Your task to perform on an android device: Do I have any events this weekend? Image 0: 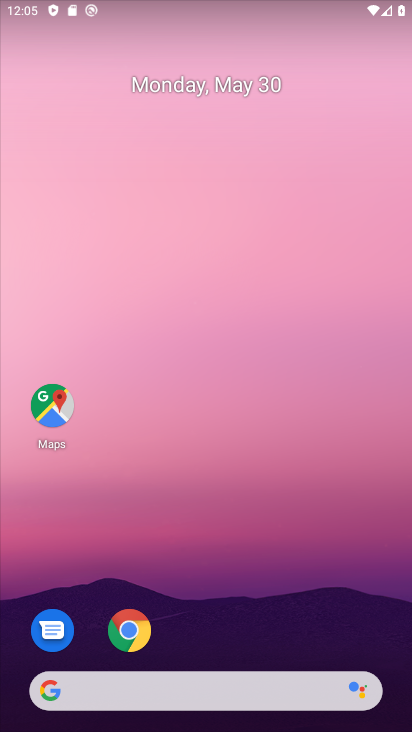
Step 0: drag from (129, 705) to (220, 67)
Your task to perform on an android device: Do I have any events this weekend? Image 1: 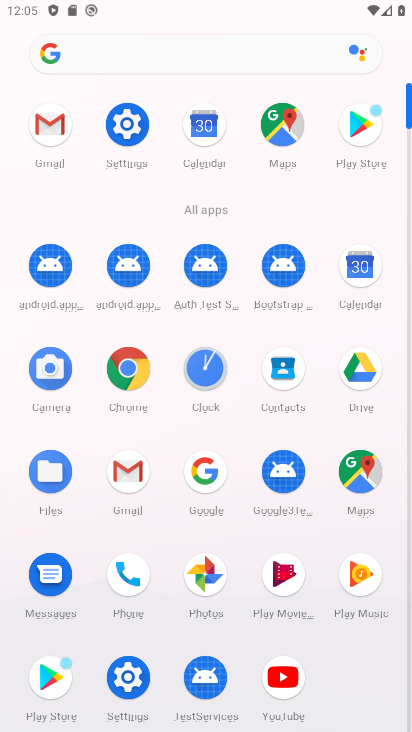
Step 1: click (351, 276)
Your task to perform on an android device: Do I have any events this weekend? Image 2: 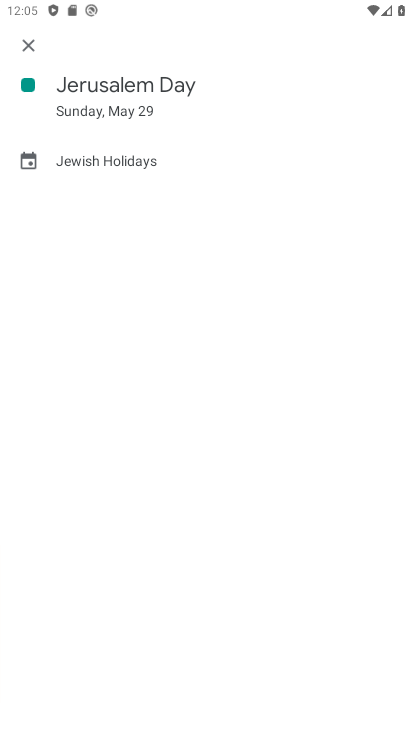
Step 2: click (21, 39)
Your task to perform on an android device: Do I have any events this weekend? Image 3: 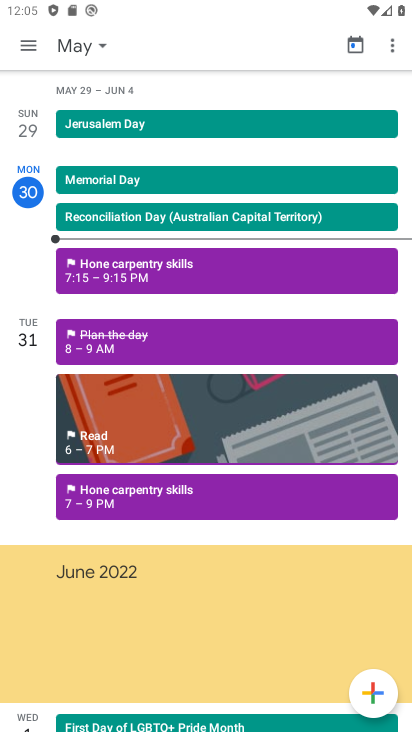
Step 3: click (21, 47)
Your task to perform on an android device: Do I have any events this weekend? Image 4: 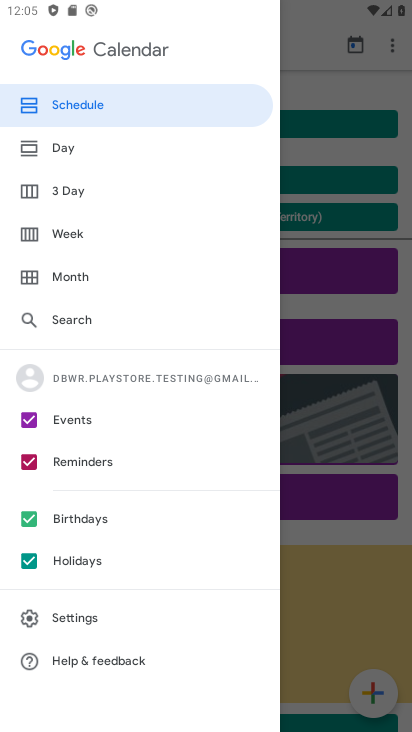
Step 4: click (33, 524)
Your task to perform on an android device: Do I have any events this weekend? Image 5: 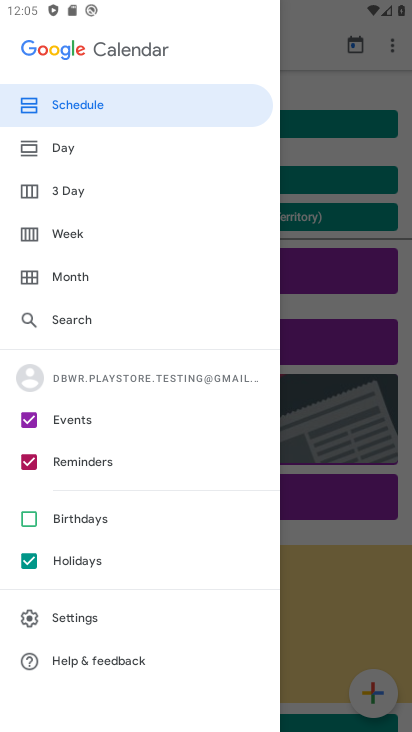
Step 5: click (28, 563)
Your task to perform on an android device: Do I have any events this weekend? Image 6: 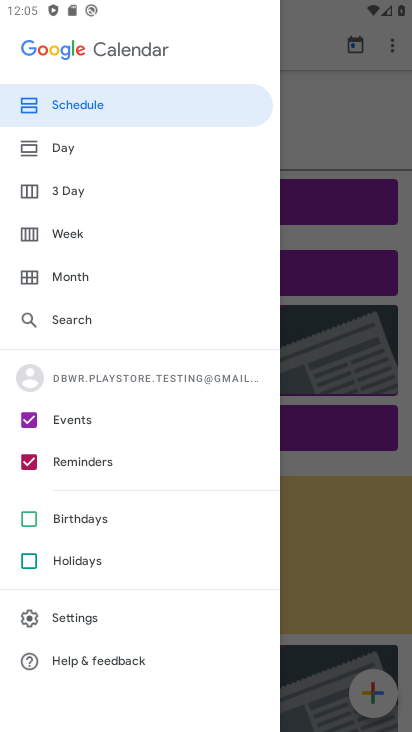
Step 6: click (24, 469)
Your task to perform on an android device: Do I have any events this weekend? Image 7: 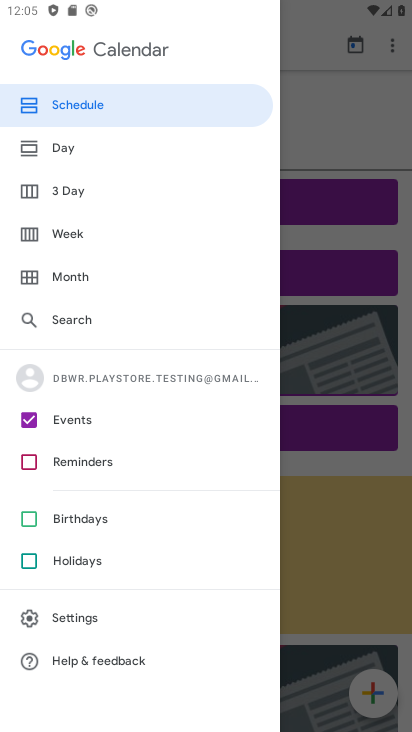
Step 7: click (80, 203)
Your task to perform on an android device: Do I have any events this weekend? Image 8: 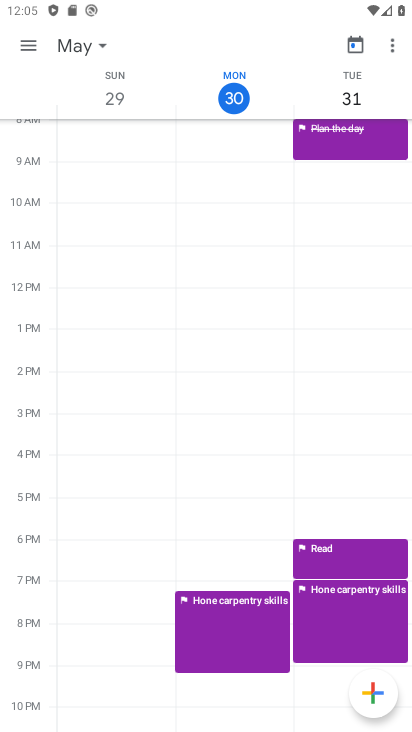
Step 8: task complete